Your task to perform on an android device: refresh tabs in the chrome app Image 0: 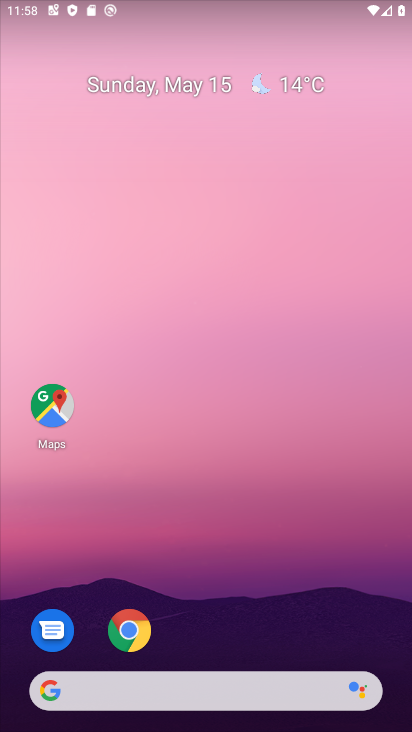
Step 0: click (122, 623)
Your task to perform on an android device: refresh tabs in the chrome app Image 1: 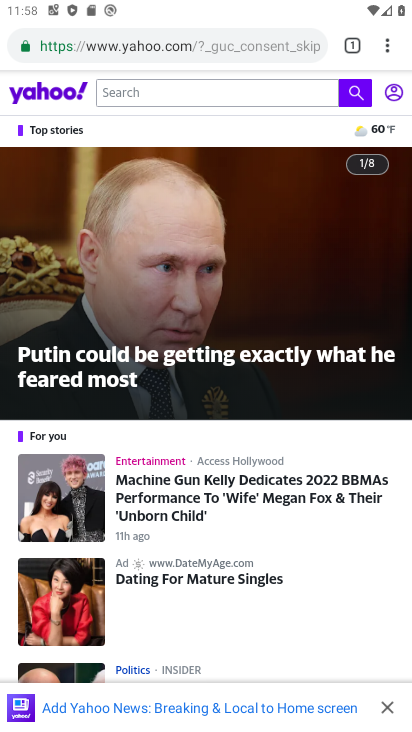
Step 1: click (395, 52)
Your task to perform on an android device: refresh tabs in the chrome app Image 2: 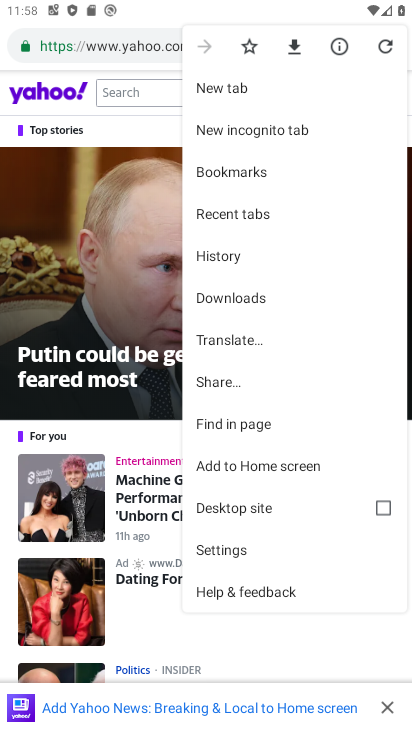
Step 2: click (387, 29)
Your task to perform on an android device: refresh tabs in the chrome app Image 3: 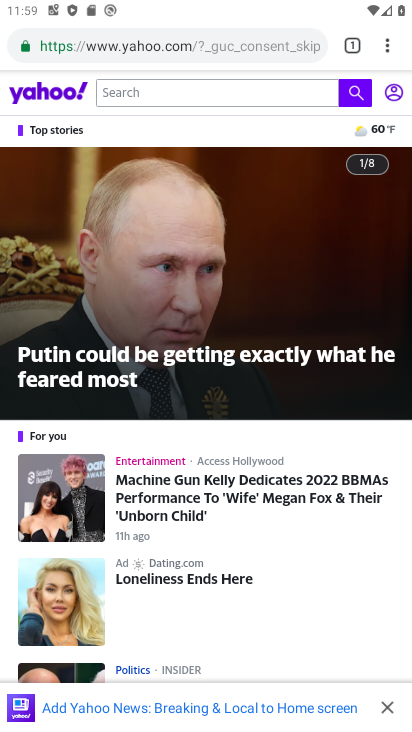
Step 3: task complete